Your task to perform on an android device: show emergency info Image 0: 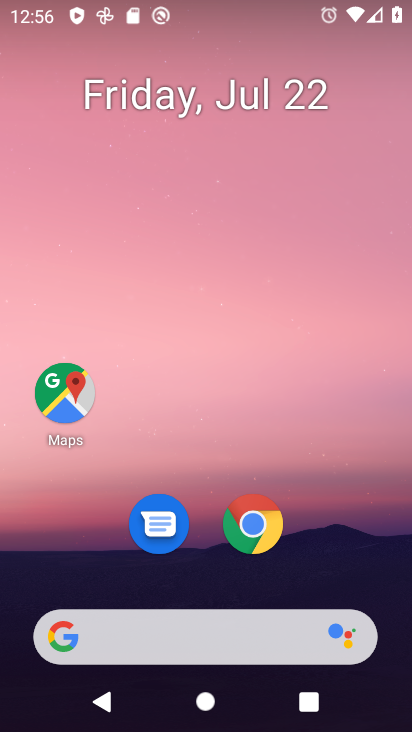
Step 0: drag from (233, 521) to (294, 194)
Your task to perform on an android device: show emergency info Image 1: 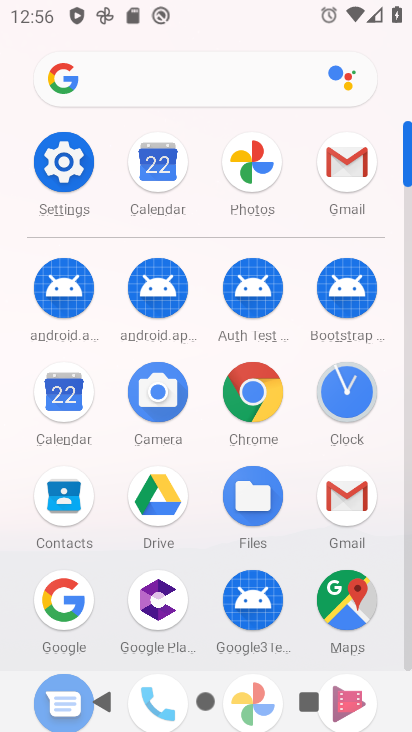
Step 1: click (62, 162)
Your task to perform on an android device: show emergency info Image 2: 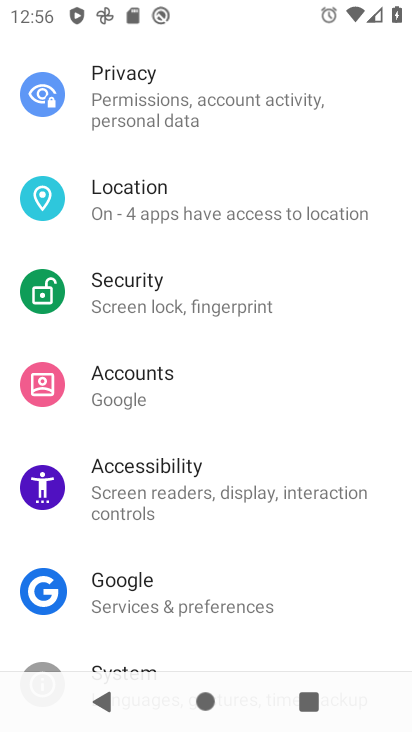
Step 2: drag from (235, 636) to (330, 54)
Your task to perform on an android device: show emergency info Image 3: 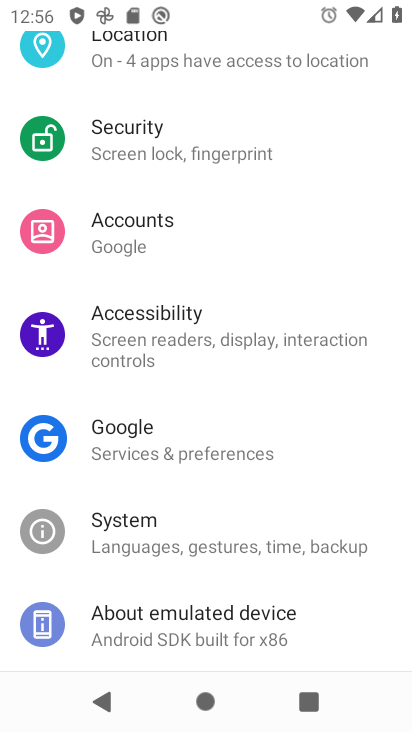
Step 3: click (204, 620)
Your task to perform on an android device: show emergency info Image 4: 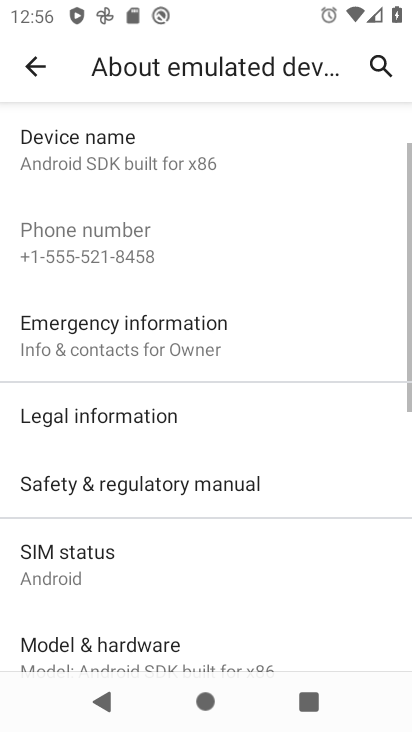
Step 4: click (127, 344)
Your task to perform on an android device: show emergency info Image 5: 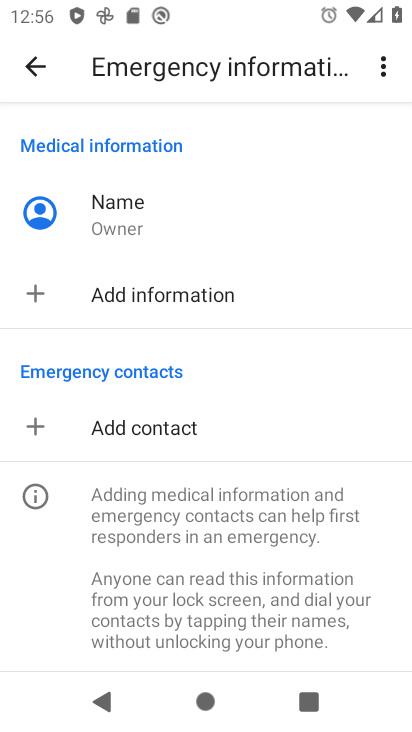
Step 5: task complete